Your task to perform on an android device: make emails show in primary in the gmail app Image 0: 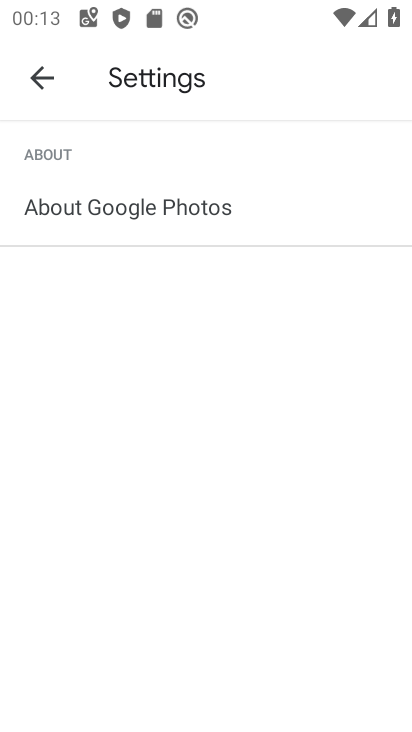
Step 0: press home button
Your task to perform on an android device: make emails show in primary in the gmail app Image 1: 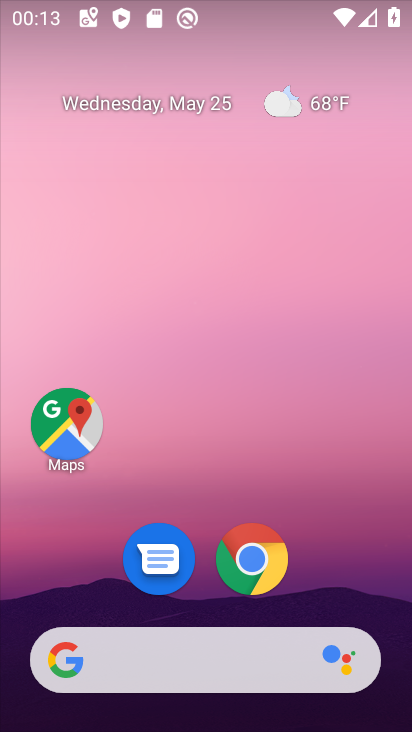
Step 1: drag from (390, 629) to (327, 89)
Your task to perform on an android device: make emails show in primary in the gmail app Image 2: 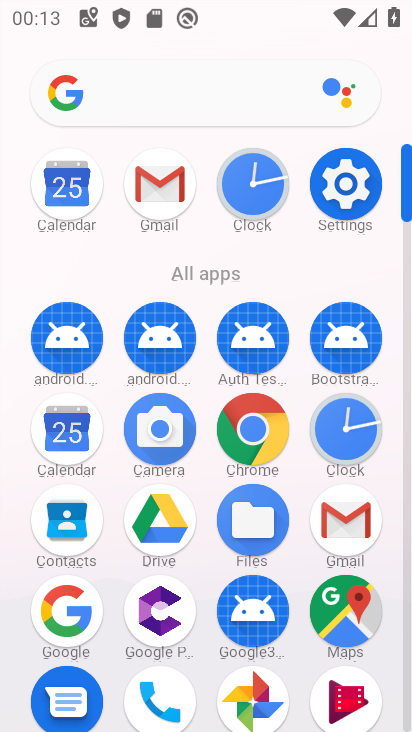
Step 2: click (406, 700)
Your task to perform on an android device: make emails show in primary in the gmail app Image 3: 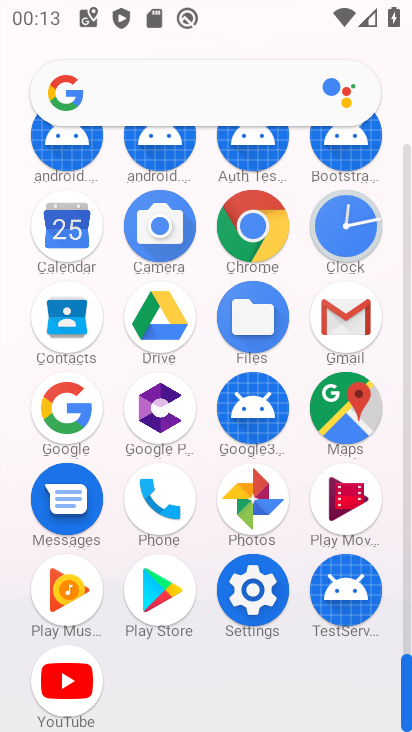
Step 3: click (345, 319)
Your task to perform on an android device: make emails show in primary in the gmail app Image 4: 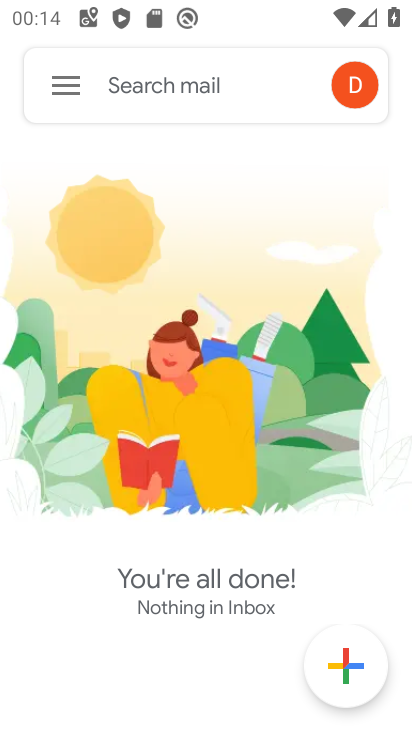
Step 4: click (65, 85)
Your task to perform on an android device: make emails show in primary in the gmail app Image 5: 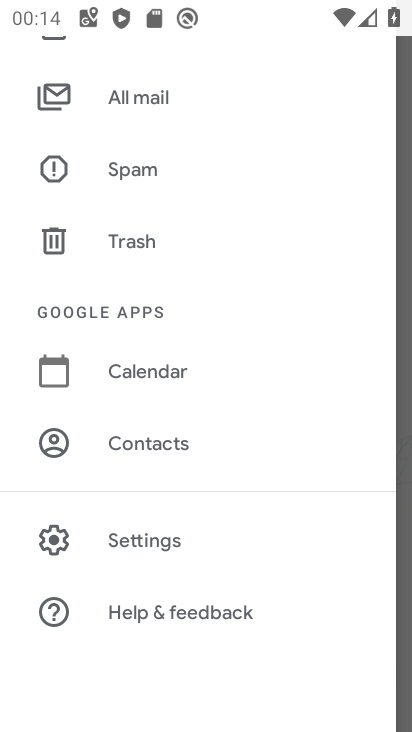
Step 5: click (159, 535)
Your task to perform on an android device: make emails show in primary in the gmail app Image 6: 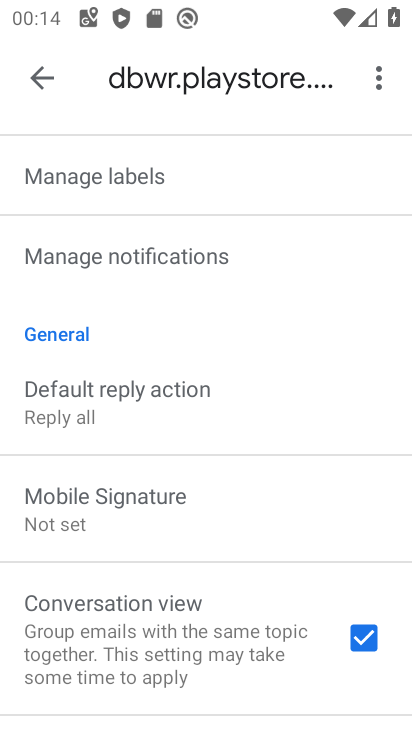
Step 6: drag from (246, 261) to (248, 520)
Your task to perform on an android device: make emails show in primary in the gmail app Image 7: 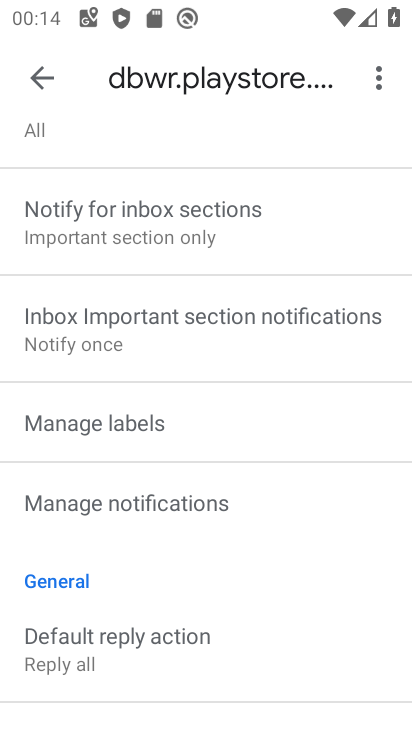
Step 7: drag from (288, 152) to (279, 491)
Your task to perform on an android device: make emails show in primary in the gmail app Image 8: 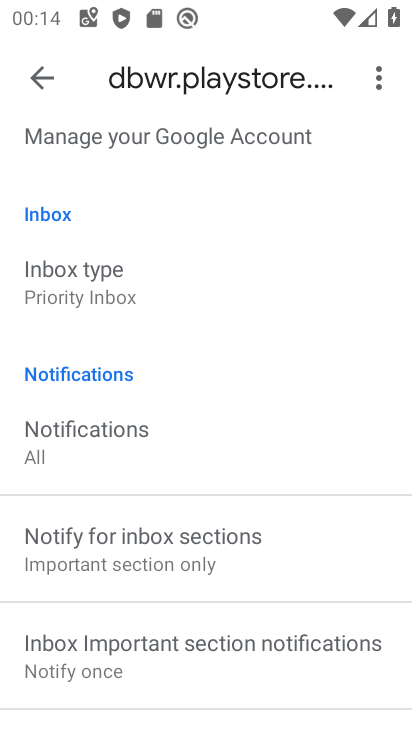
Step 8: click (69, 286)
Your task to perform on an android device: make emails show in primary in the gmail app Image 9: 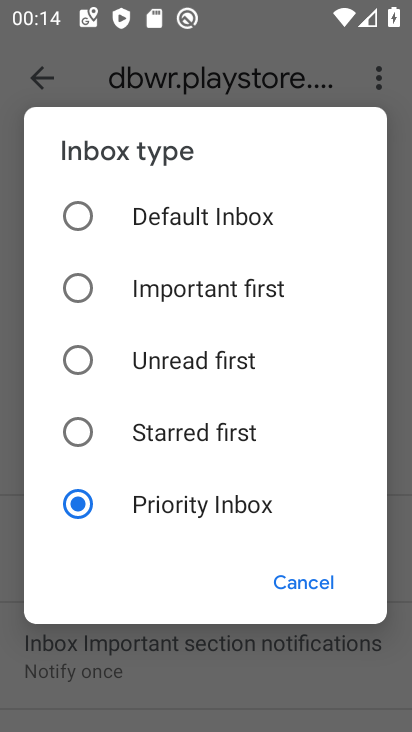
Step 9: click (79, 217)
Your task to perform on an android device: make emails show in primary in the gmail app Image 10: 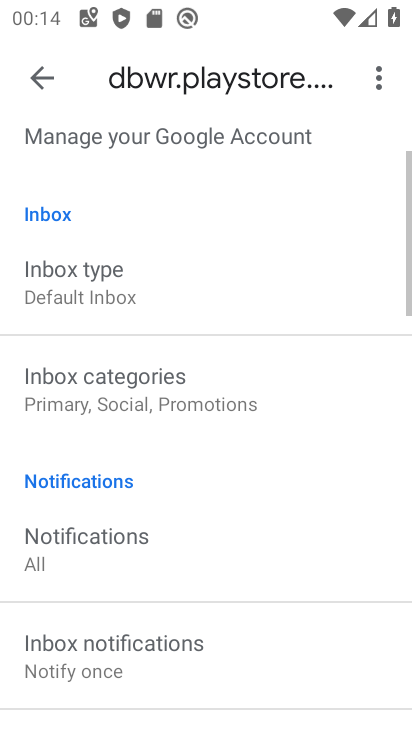
Step 10: click (82, 385)
Your task to perform on an android device: make emails show in primary in the gmail app Image 11: 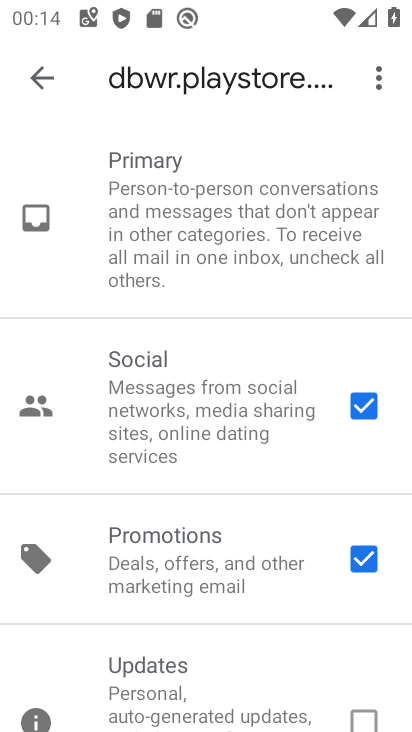
Step 11: click (370, 404)
Your task to perform on an android device: make emails show in primary in the gmail app Image 12: 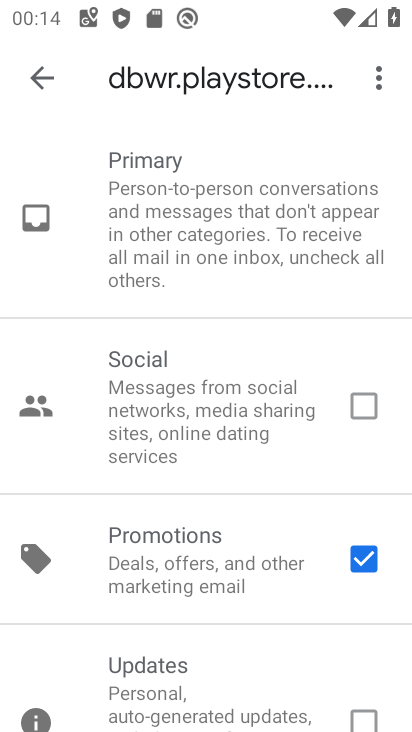
Step 12: click (355, 555)
Your task to perform on an android device: make emails show in primary in the gmail app Image 13: 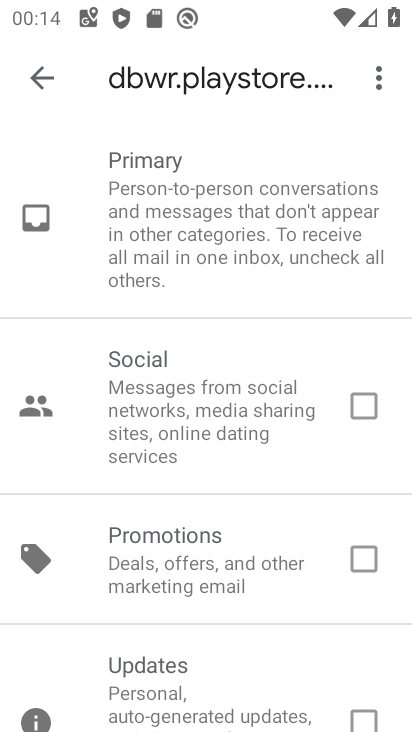
Step 13: task complete